Your task to perform on an android device: turn off smart reply in the gmail app Image 0: 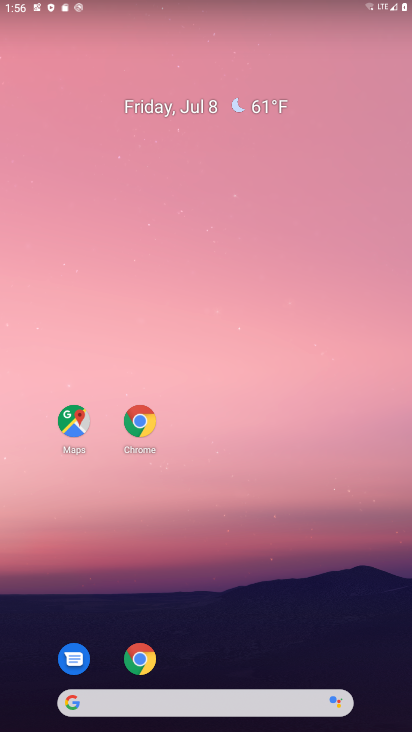
Step 0: drag from (234, 683) to (208, 187)
Your task to perform on an android device: turn off smart reply in the gmail app Image 1: 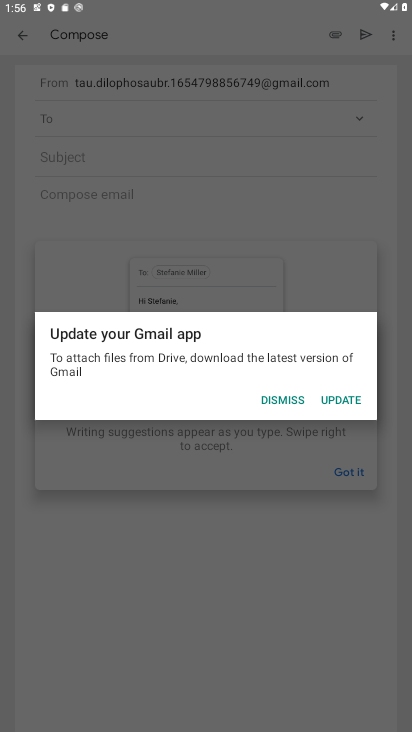
Step 1: click (287, 398)
Your task to perform on an android device: turn off smart reply in the gmail app Image 2: 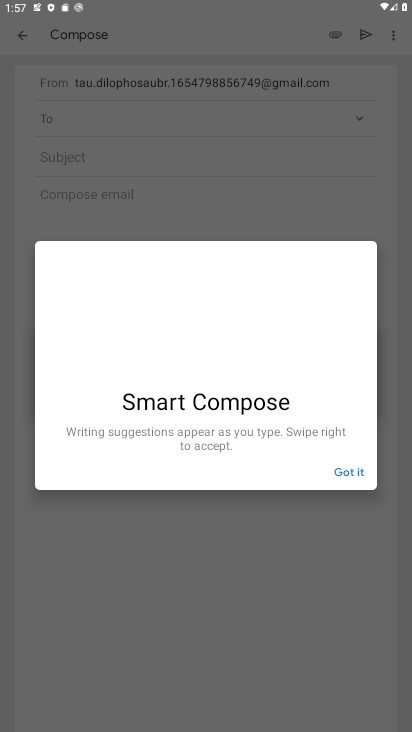
Step 2: click (351, 473)
Your task to perform on an android device: turn off smart reply in the gmail app Image 3: 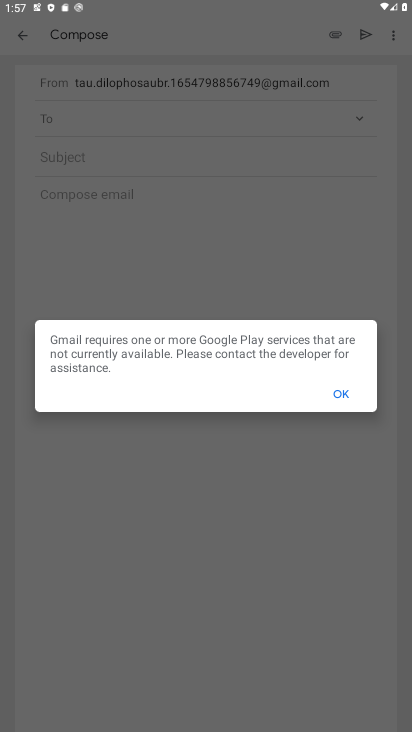
Step 3: click (341, 395)
Your task to perform on an android device: turn off smart reply in the gmail app Image 4: 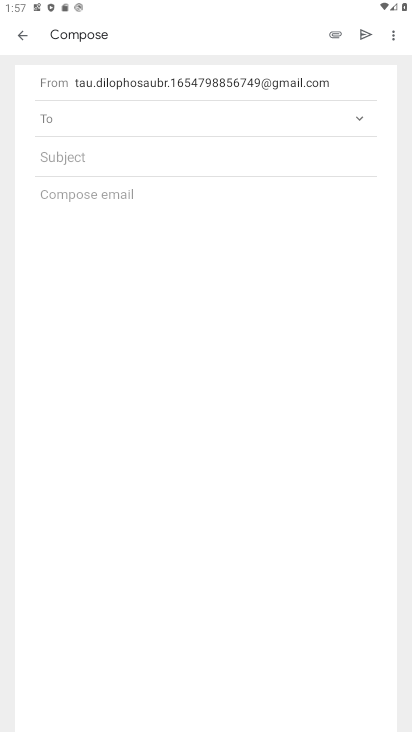
Step 4: click (23, 42)
Your task to perform on an android device: turn off smart reply in the gmail app Image 5: 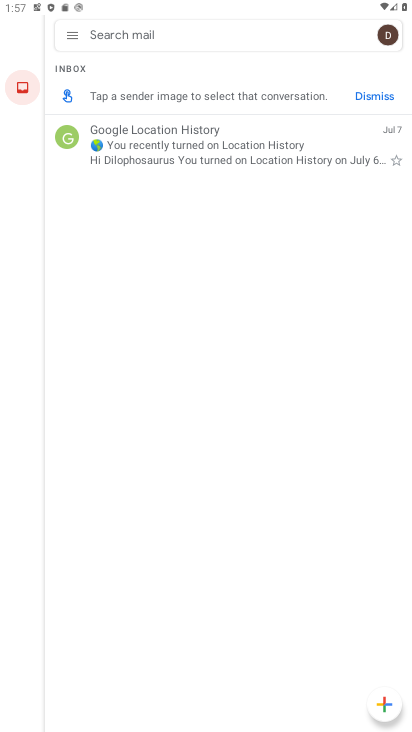
Step 5: drag from (67, 38) to (84, 206)
Your task to perform on an android device: turn off smart reply in the gmail app Image 6: 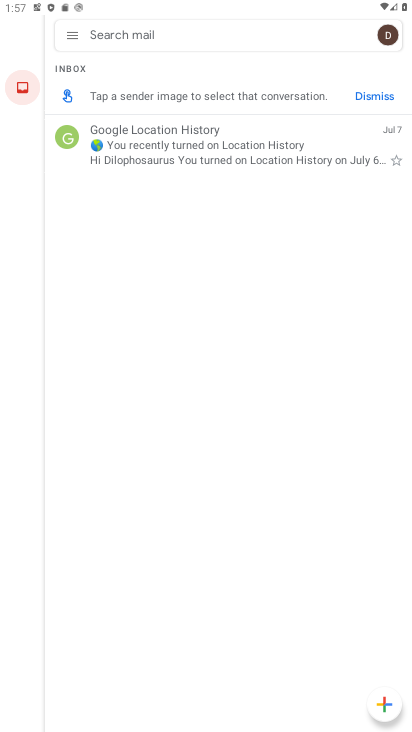
Step 6: click (68, 22)
Your task to perform on an android device: turn off smart reply in the gmail app Image 7: 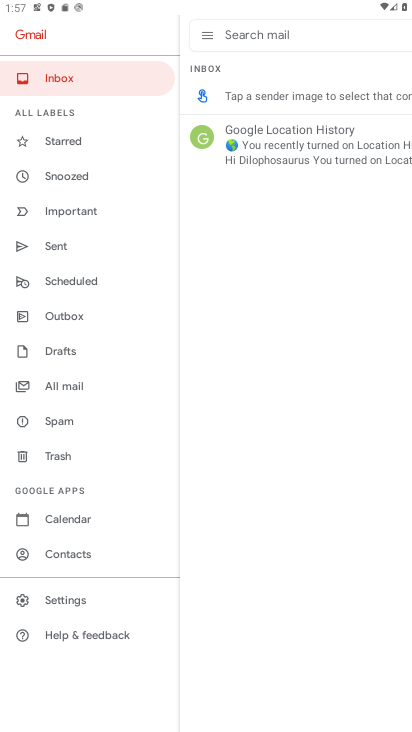
Step 7: click (67, 592)
Your task to perform on an android device: turn off smart reply in the gmail app Image 8: 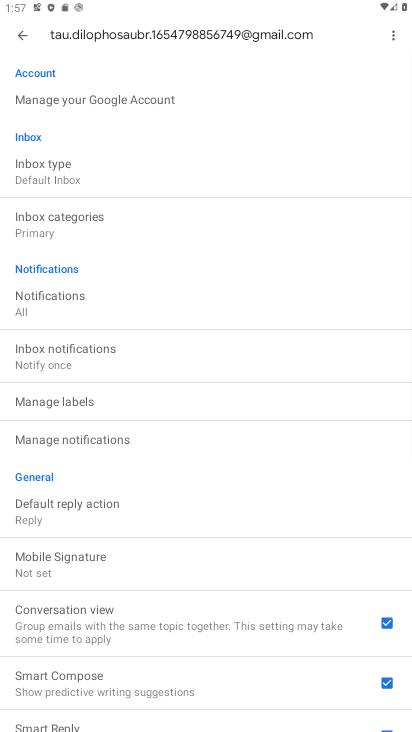
Step 8: drag from (104, 567) to (77, 214)
Your task to perform on an android device: turn off smart reply in the gmail app Image 9: 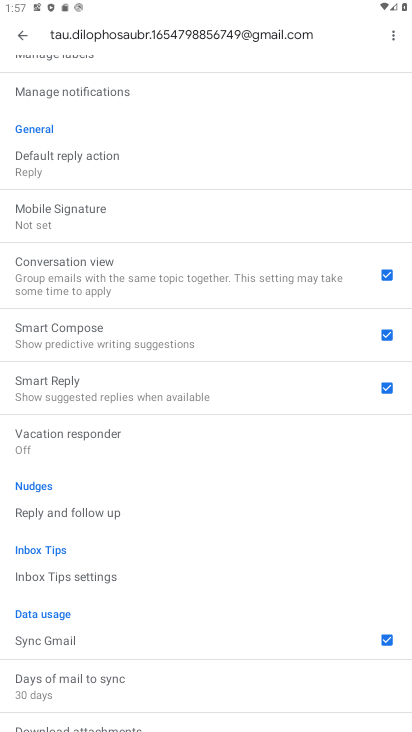
Step 9: drag from (86, 675) to (84, 117)
Your task to perform on an android device: turn off smart reply in the gmail app Image 10: 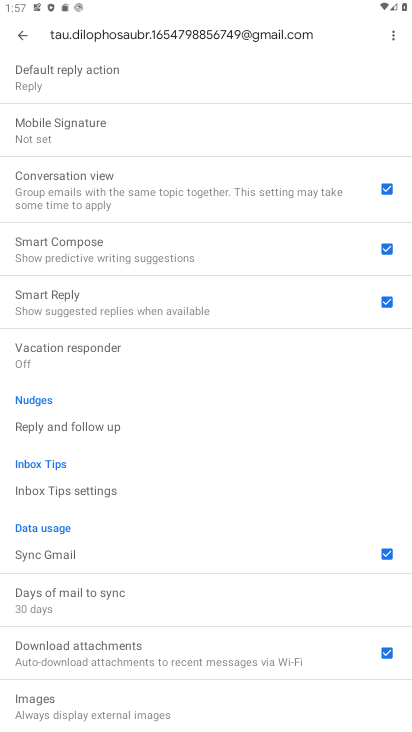
Step 10: drag from (58, 527) to (30, 137)
Your task to perform on an android device: turn off smart reply in the gmail app Image 11: 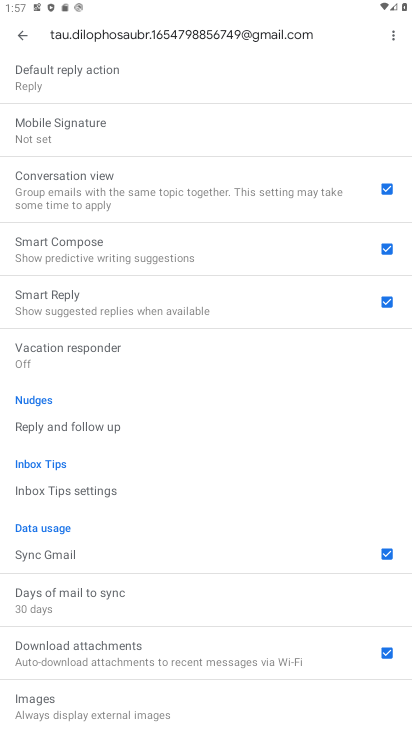
Step 11: click (97, 305)
Your task to perform on an android device: turn off smart reply in the gmail app Image 12: 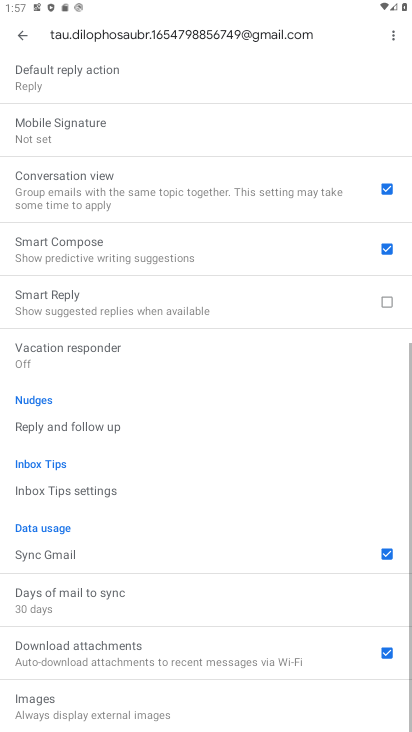
Step 12: task complete